Your task to perform on an android device: Open network settings Image 0: 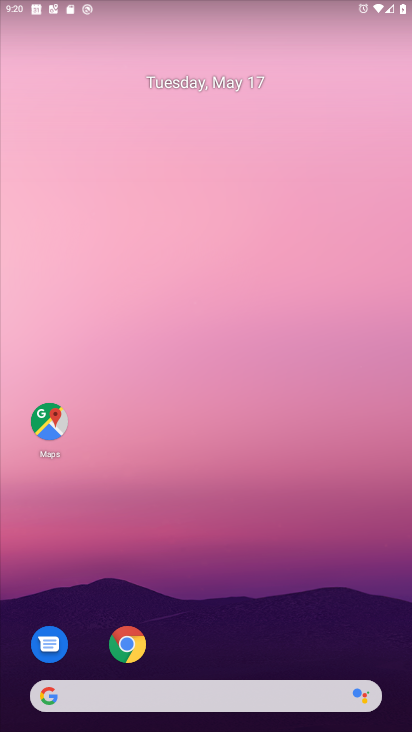
Step 0: click (217, 56)
Your task to perform on an android device: Open network settings Image 1: 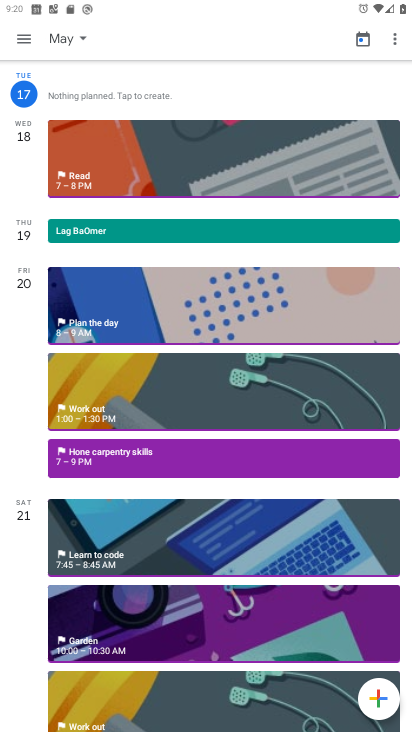
Step 1: press home button
Your task to perform on an android device: Open network settings Image 2: 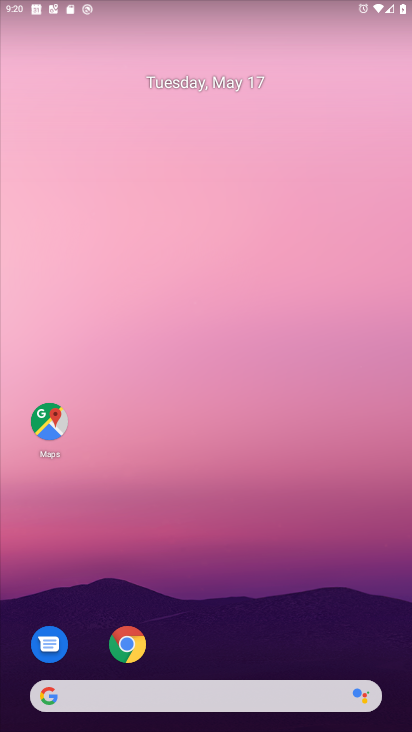
Step 2: drag from (200, 646) to (193, 277)
Your task to perform on an android device: Open network settings Image 3: 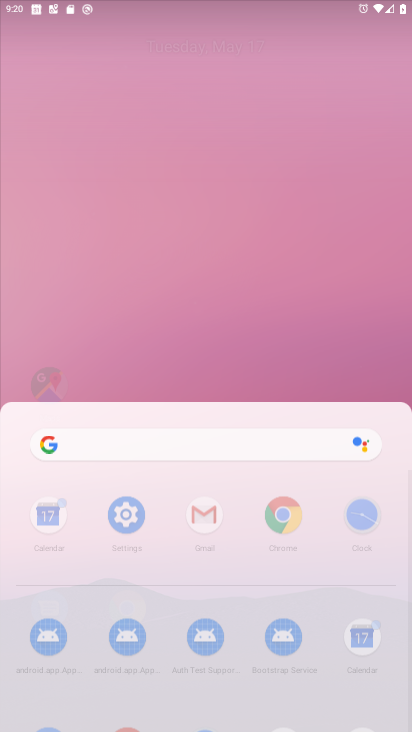
Step 3: click (190, 73)
Your task to perform on an android device: Open network settings Image 4: 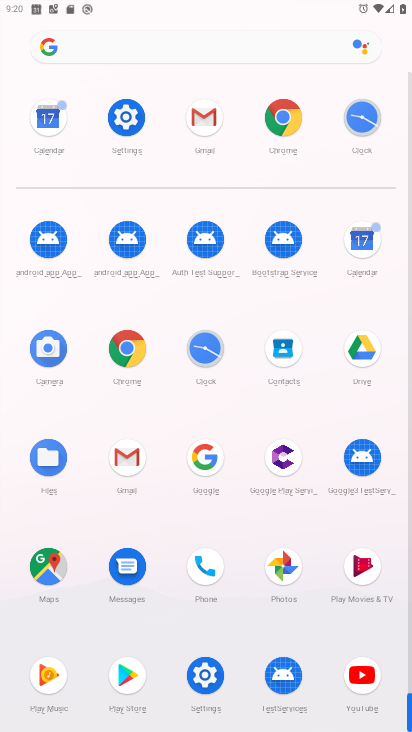
Step 4: click (122, 108)
Your task to perform on an android device: Open network settings Image 5: 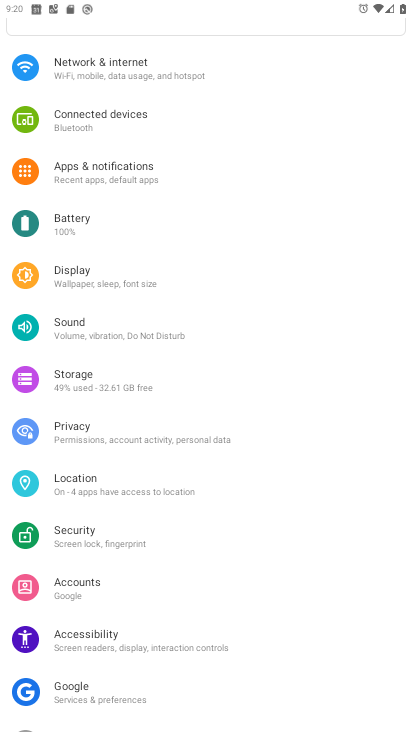
Step 5: click (152, 62)
Your task to perform on an android device: Open network settings Image 6: 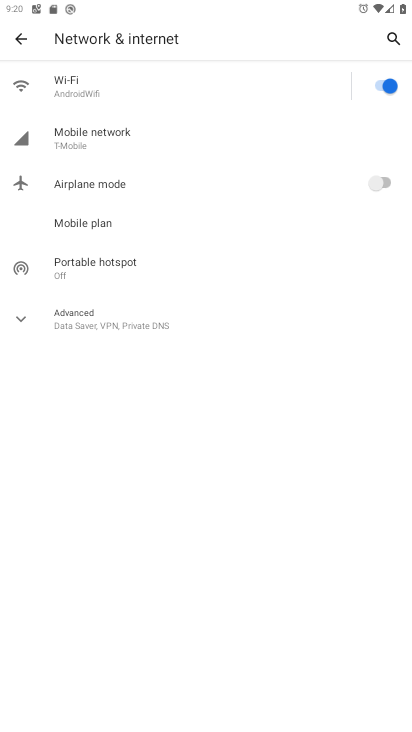
Step 6: click (35, 315)
Your task to perform on an android device: Open network settings Image 7: 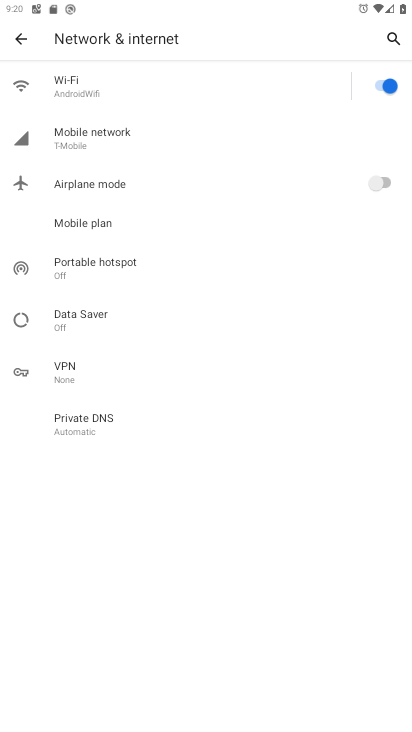
Step 7: task complete